Your task to perform on an android device: Open the web browser Image 0: 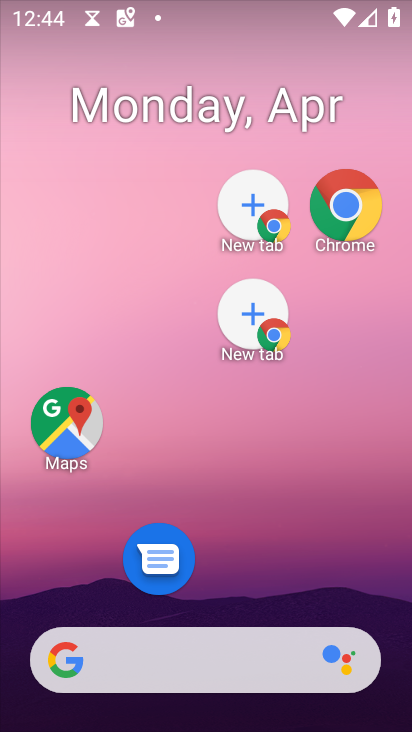
Step 0: click (342, 218)
Your task to perform on an android device: Open the web browser Image 1: 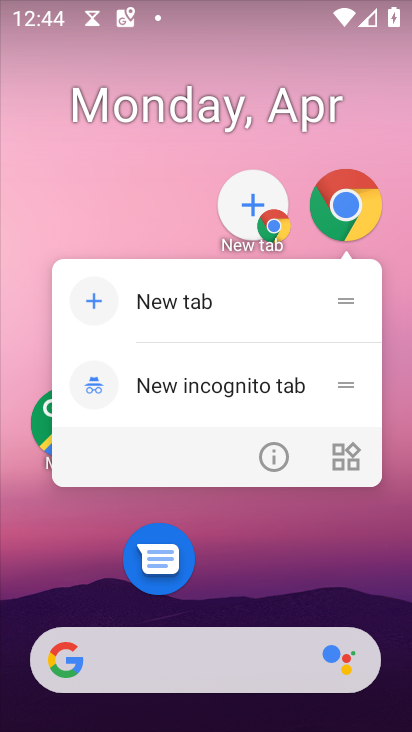
Step 1: click (287, 456)
Your task to perform on an android device: Open the web browser Image 2: 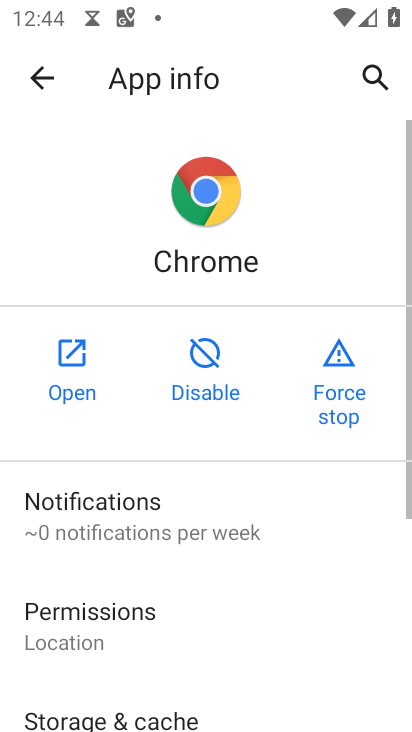
Step 2: click (102, 375)
Your task to perform on an android device: Open the web browser Image 3: 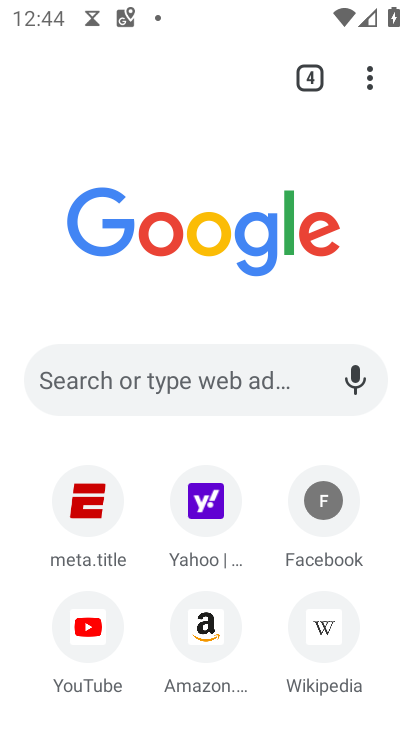
Step 3: task complete